Your task to perform on an android device: install app "Google News" Image 0: 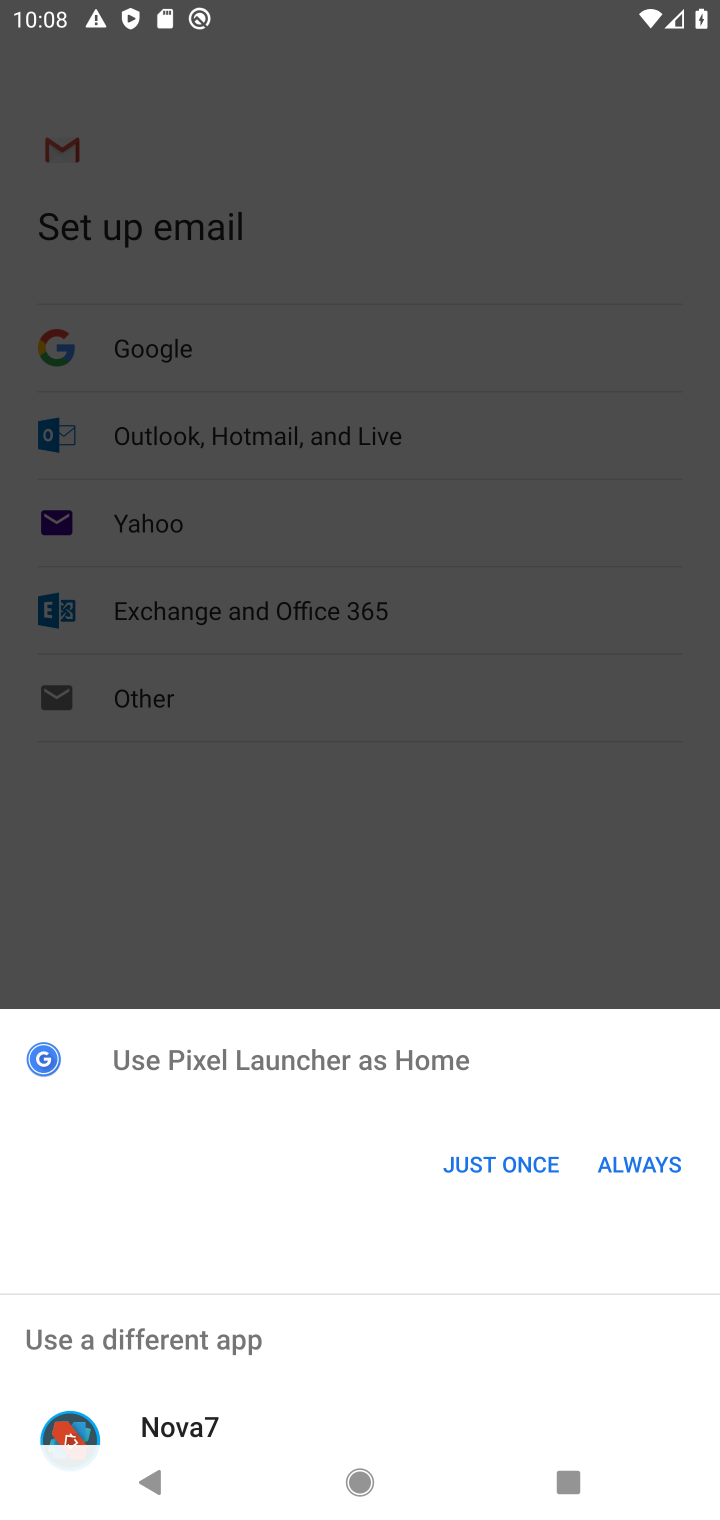
Step 0: click (485, 1172)
Your task to perform on an android device: install app "Google News" Image 1: 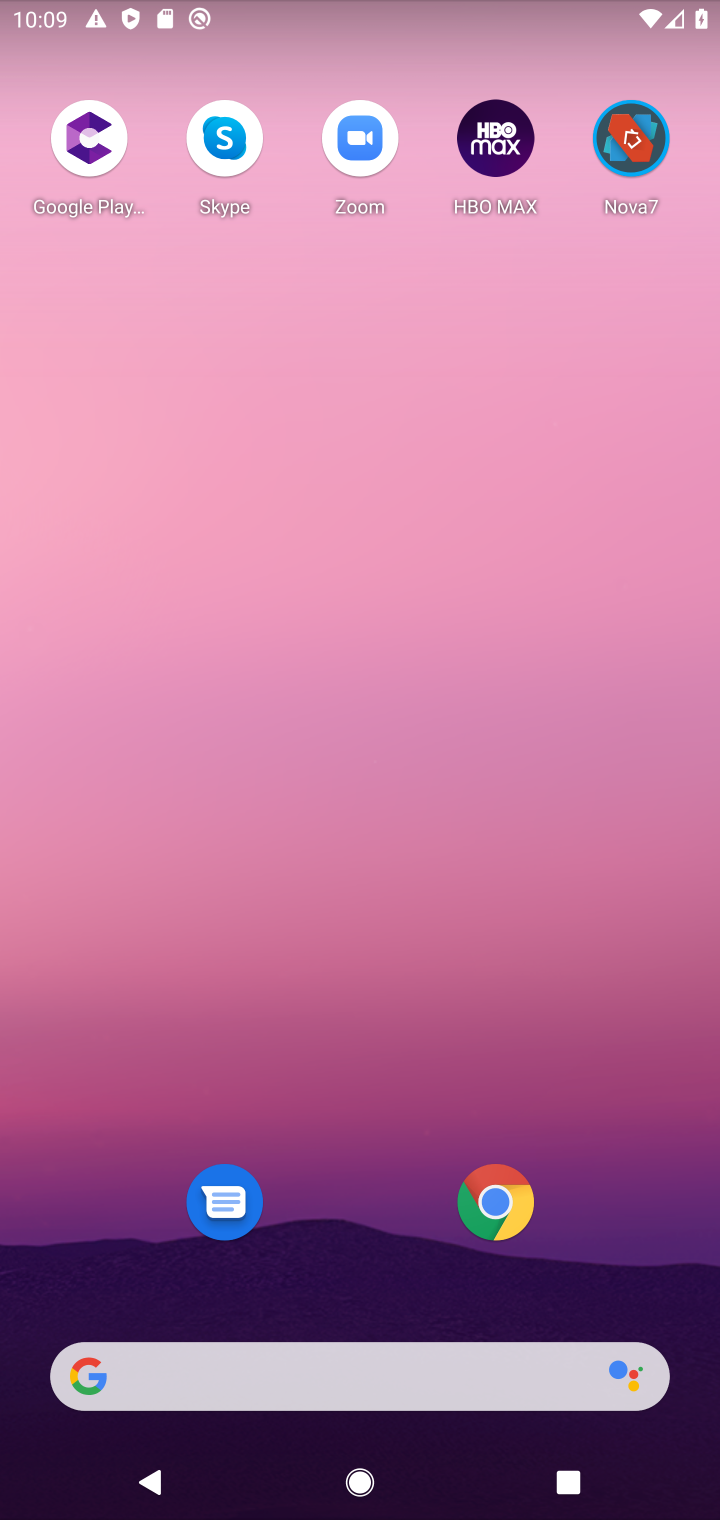
Step 1: click (342, 1364)
Your task to perform on an android device: install app "Google News" Image 2: 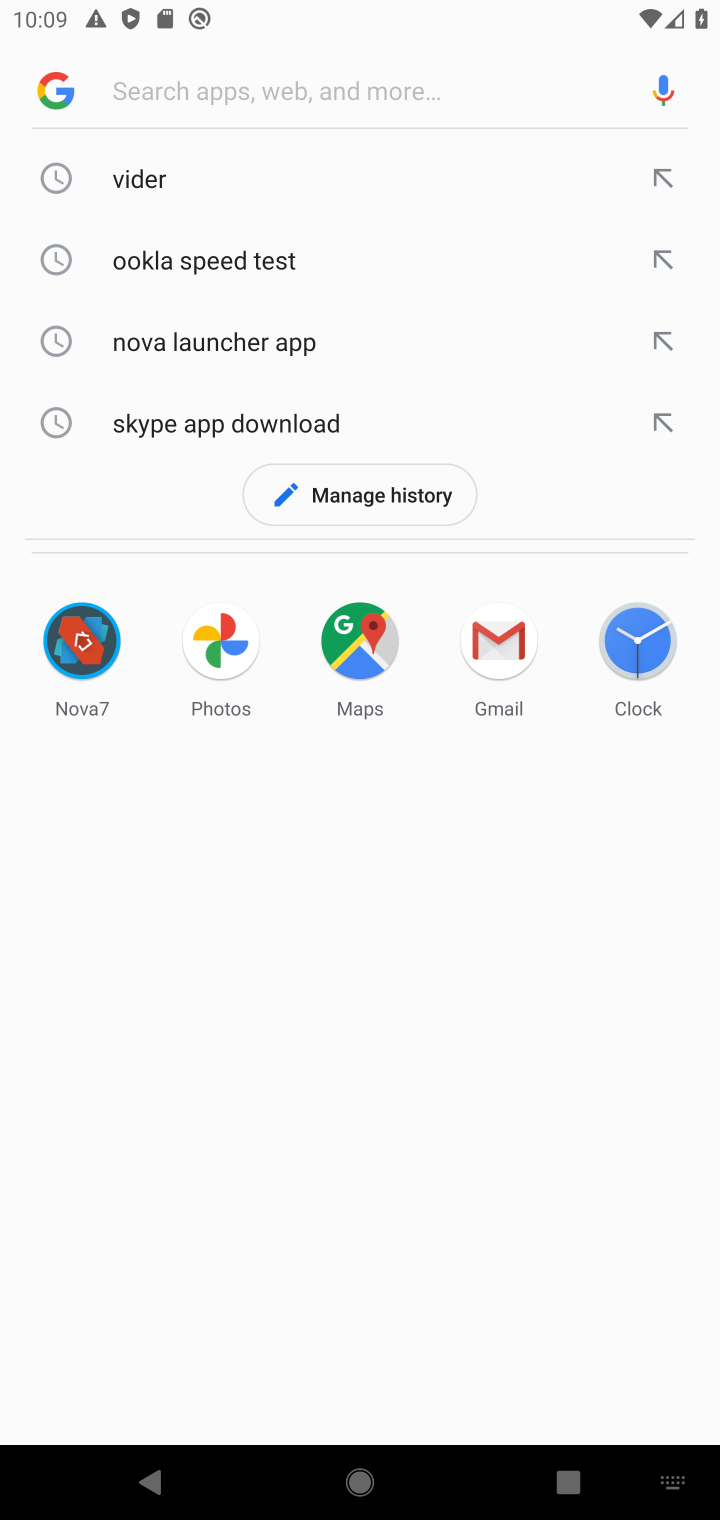
Step 2: type "google news"
Your task to perform on an android device: install app "Google News" Image 3: 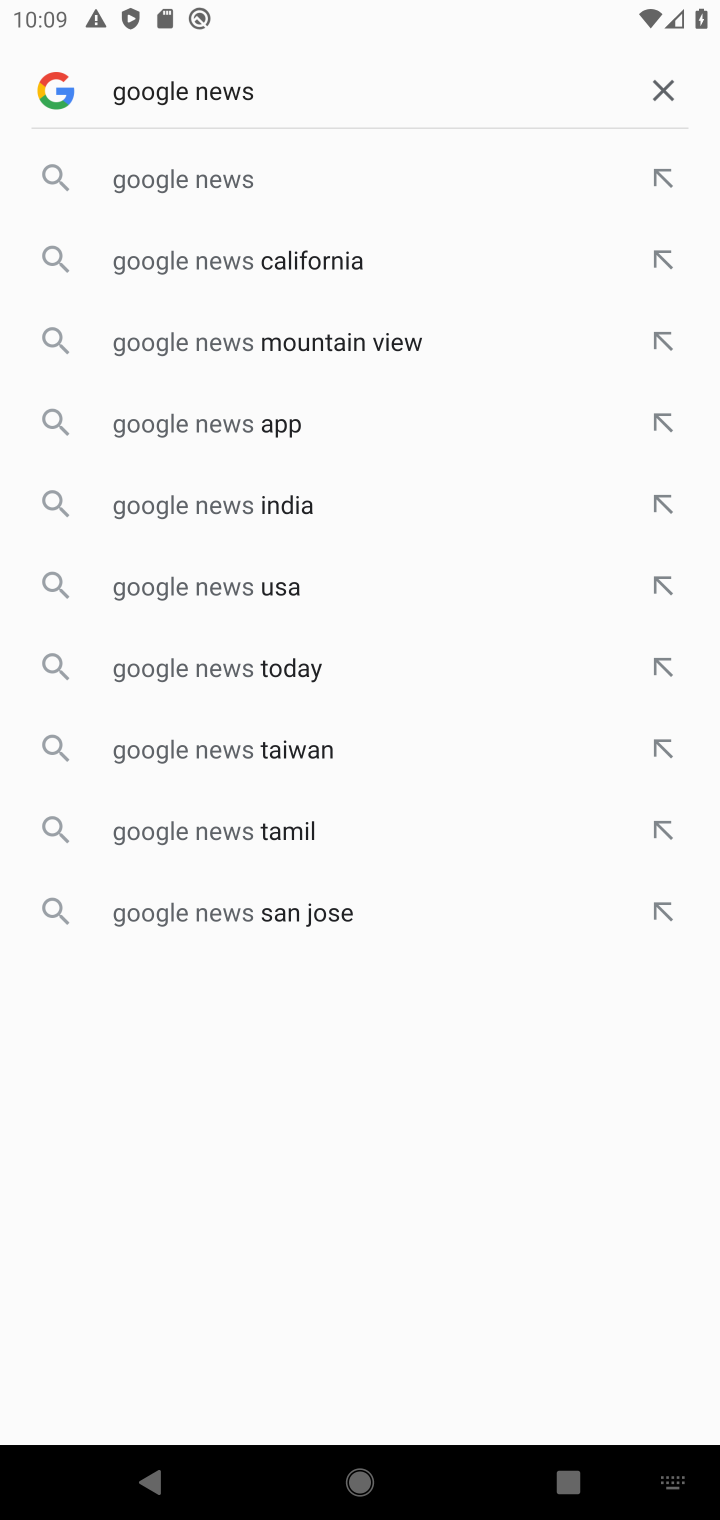
Step 3: click (480, 161)
Your task to perform on an android device: install app "Google News" Image 4: 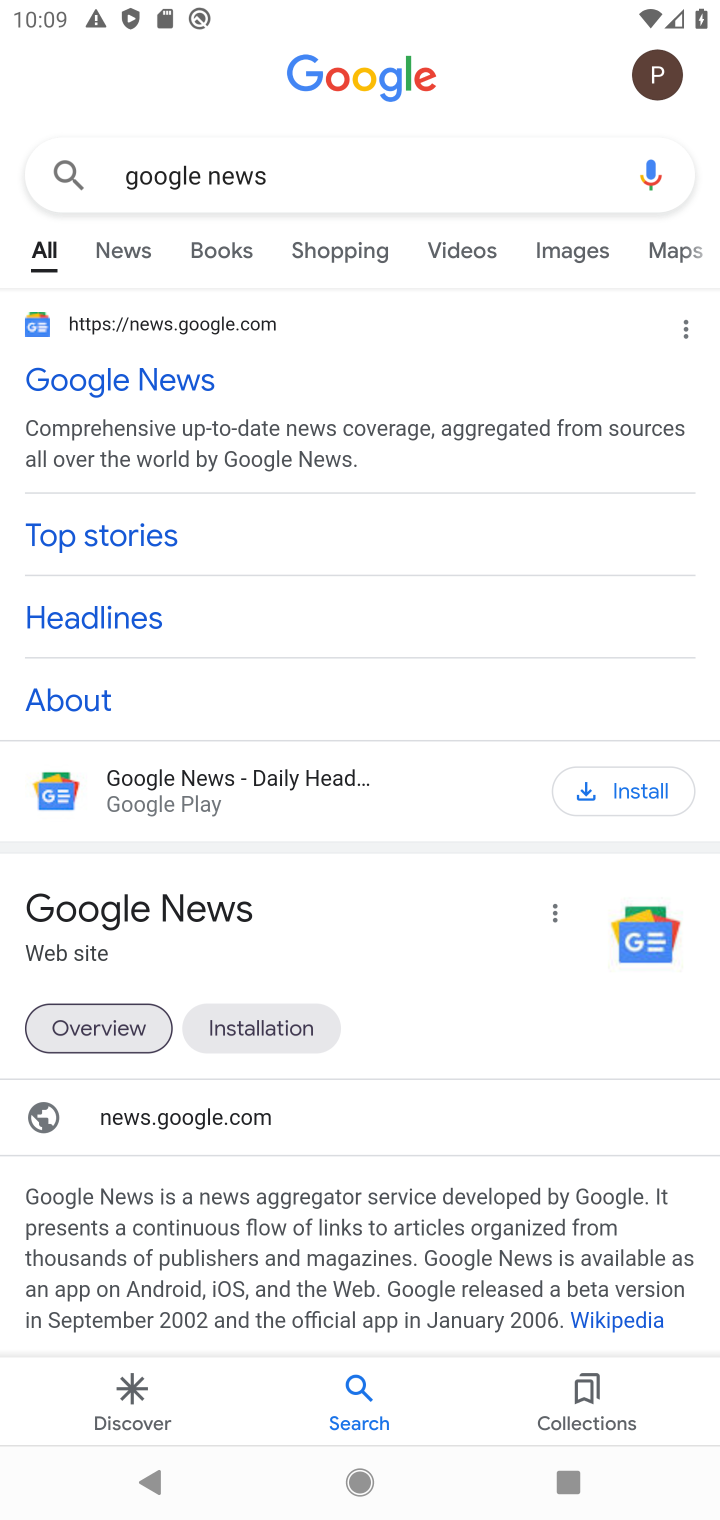
Step 4: click (584, 777)
Your task to perform on an android device: install app "Google News" Image 5: 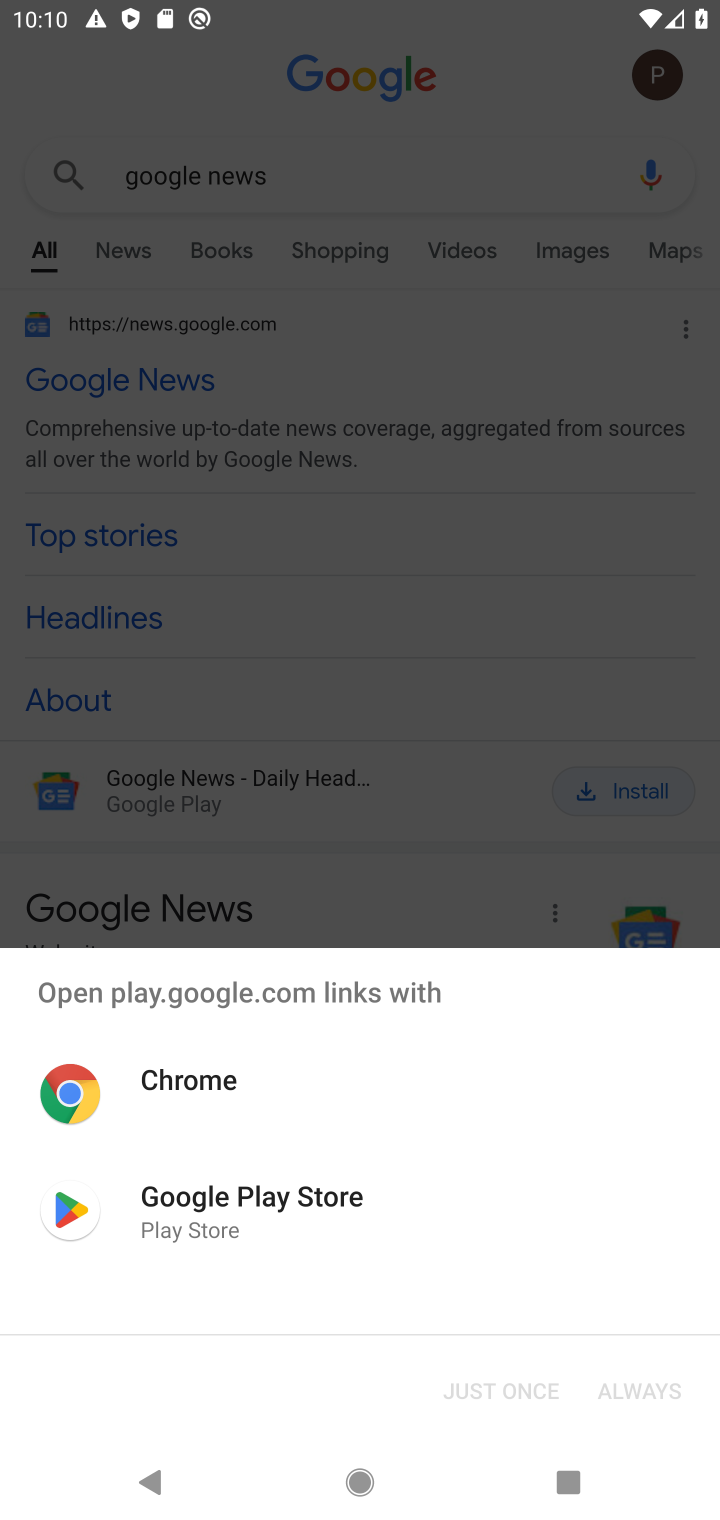
Step 5: click (169, 1260)
Your task to perform on an android device: install app "Google News" Image 6: 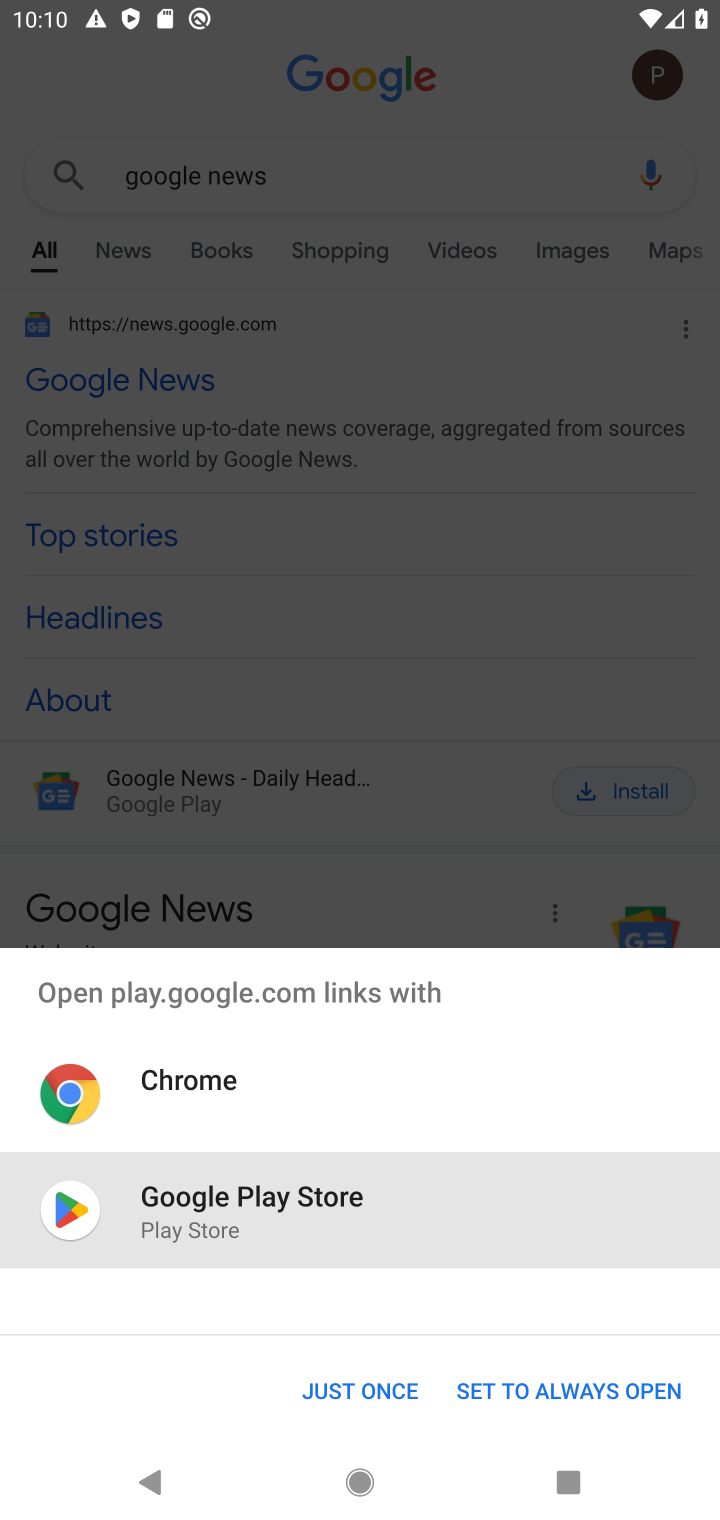
Step 6: click (331, 1403)
Your task to perform on an android device: install app "Google News" Image 7: 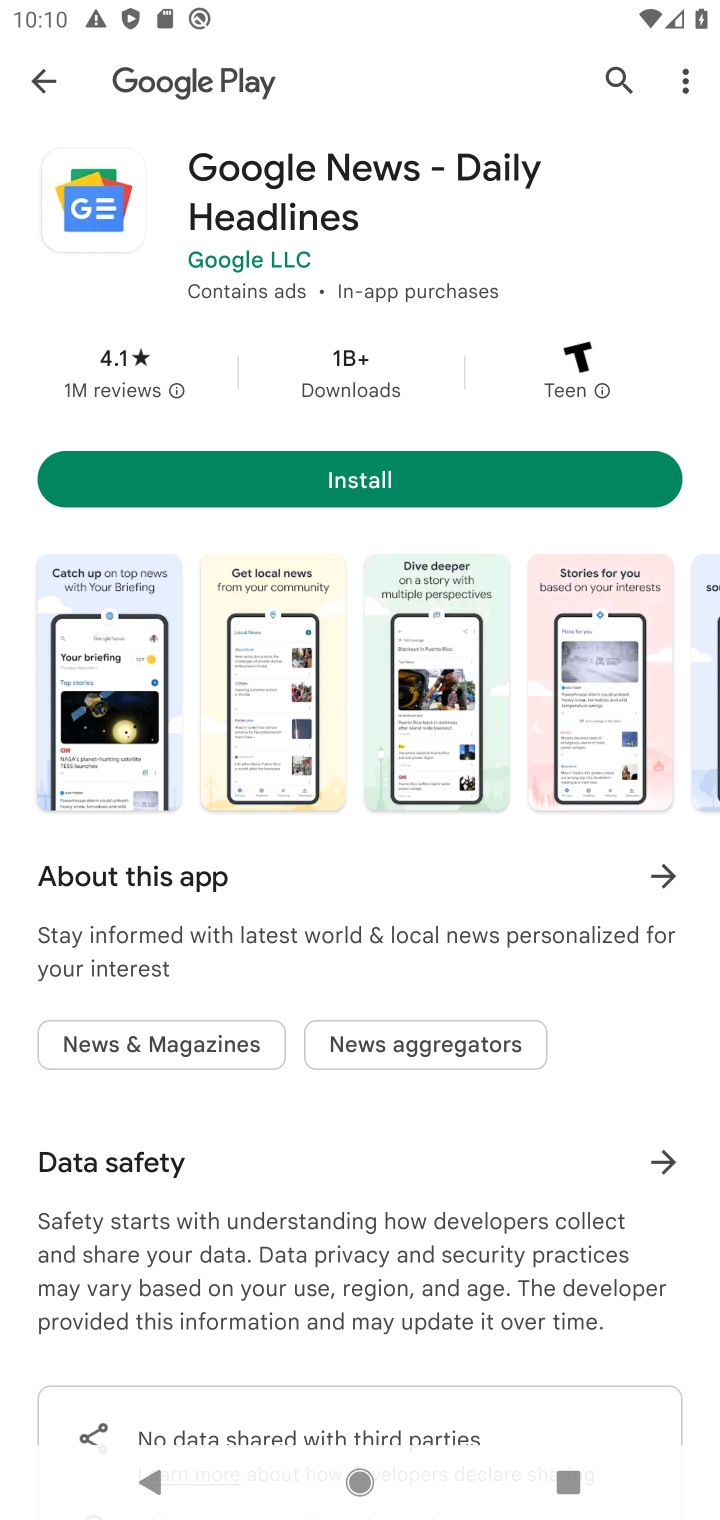
Step 7: click (432, 490)
Your task to perform on an android device: install app "Google News" Image 8: 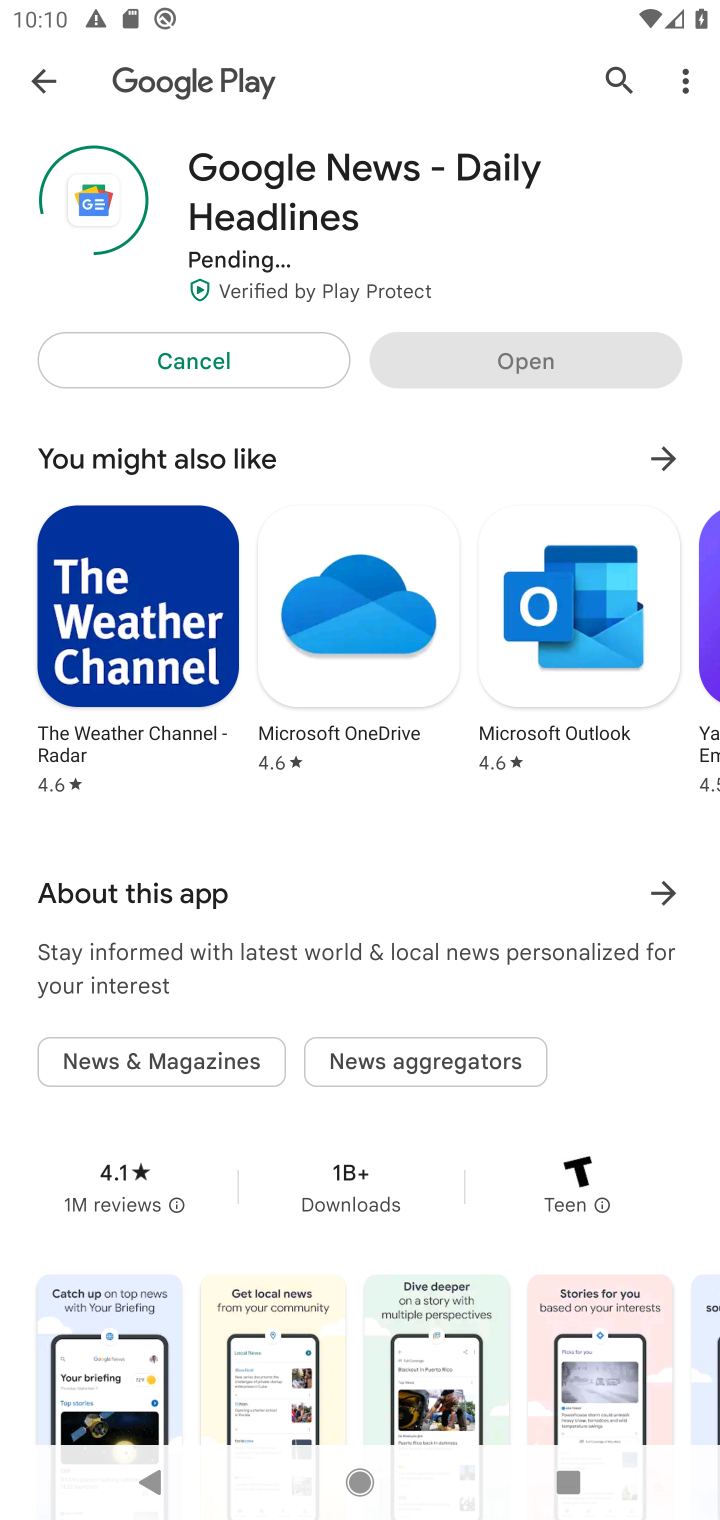
Step 8: task complete